Your task to perform on an android device: toggle show notifications on the lock screen Image 0: 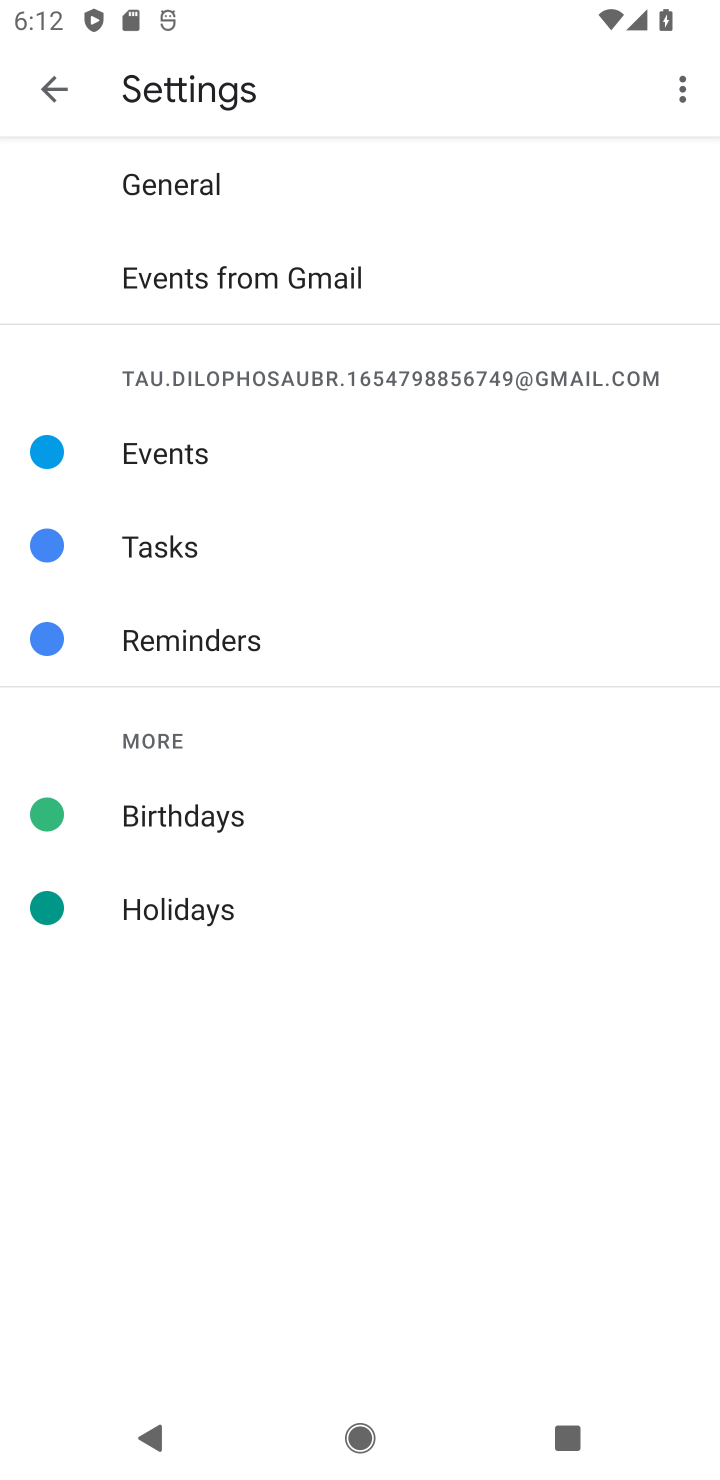
Step 0: press home button
Your task to perform on an android device: toggle show notifications on the lock screen Image 1: 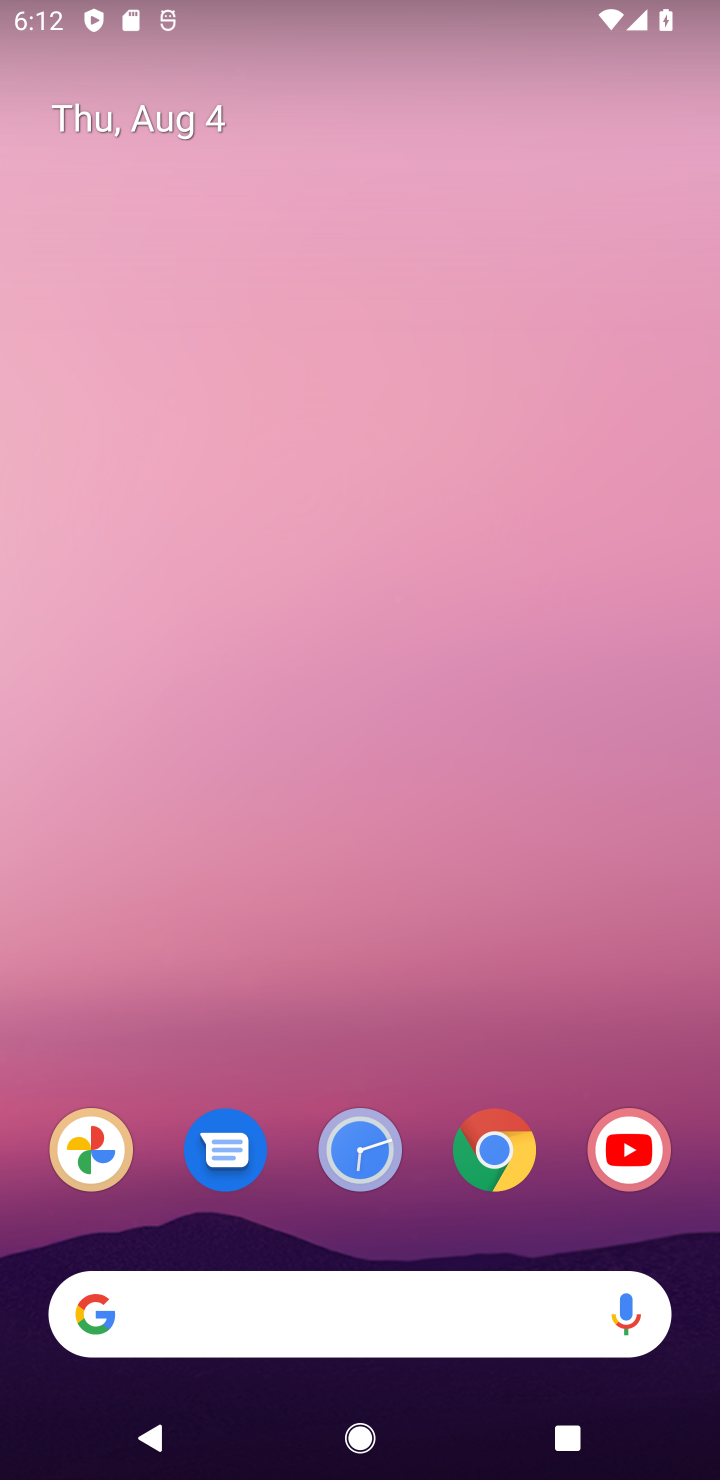
Step 1: drag from (529, 1166) to (369, 3)
Your task to perform on an android device: toggle show notifications on the lock screen Image 2: 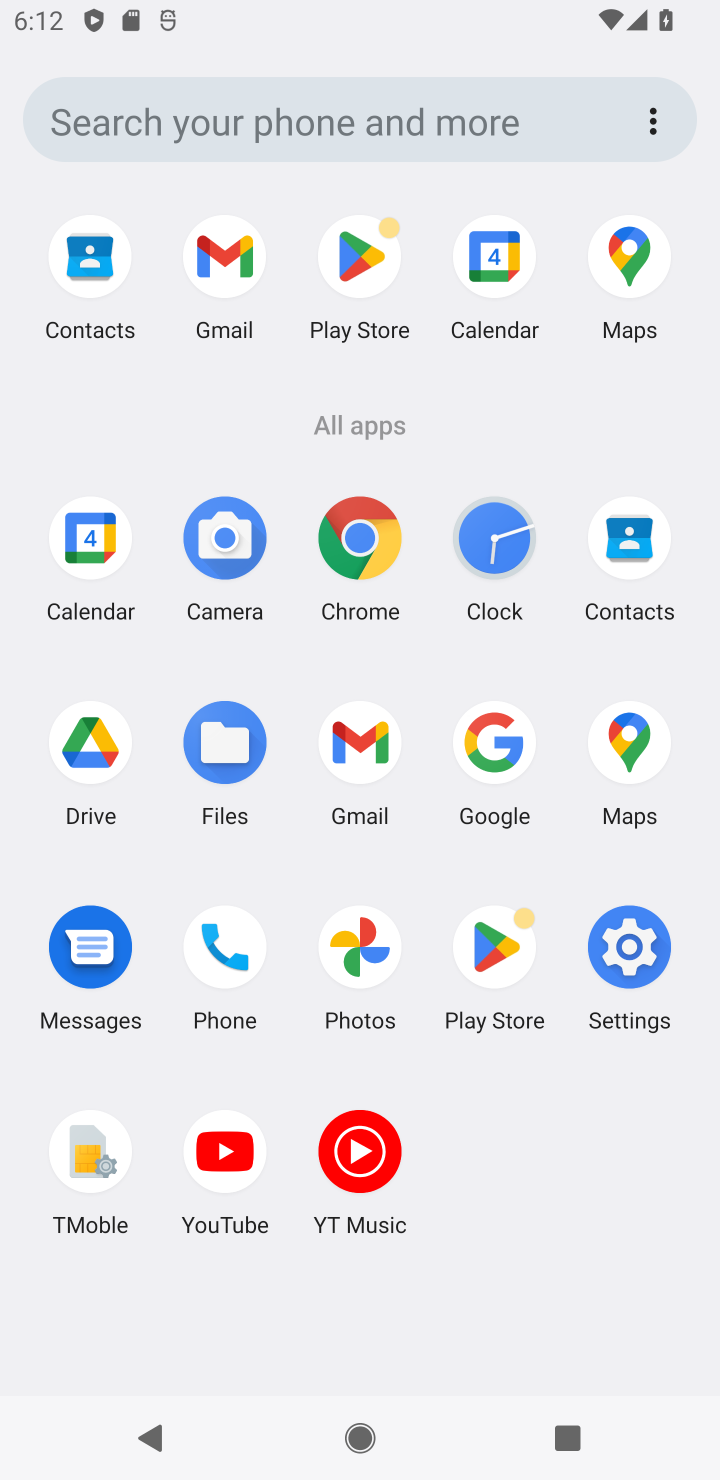
Step 2: click (630, 950)
Your task to perform on an android device: toggle show notifications on the lock screen Image 3: 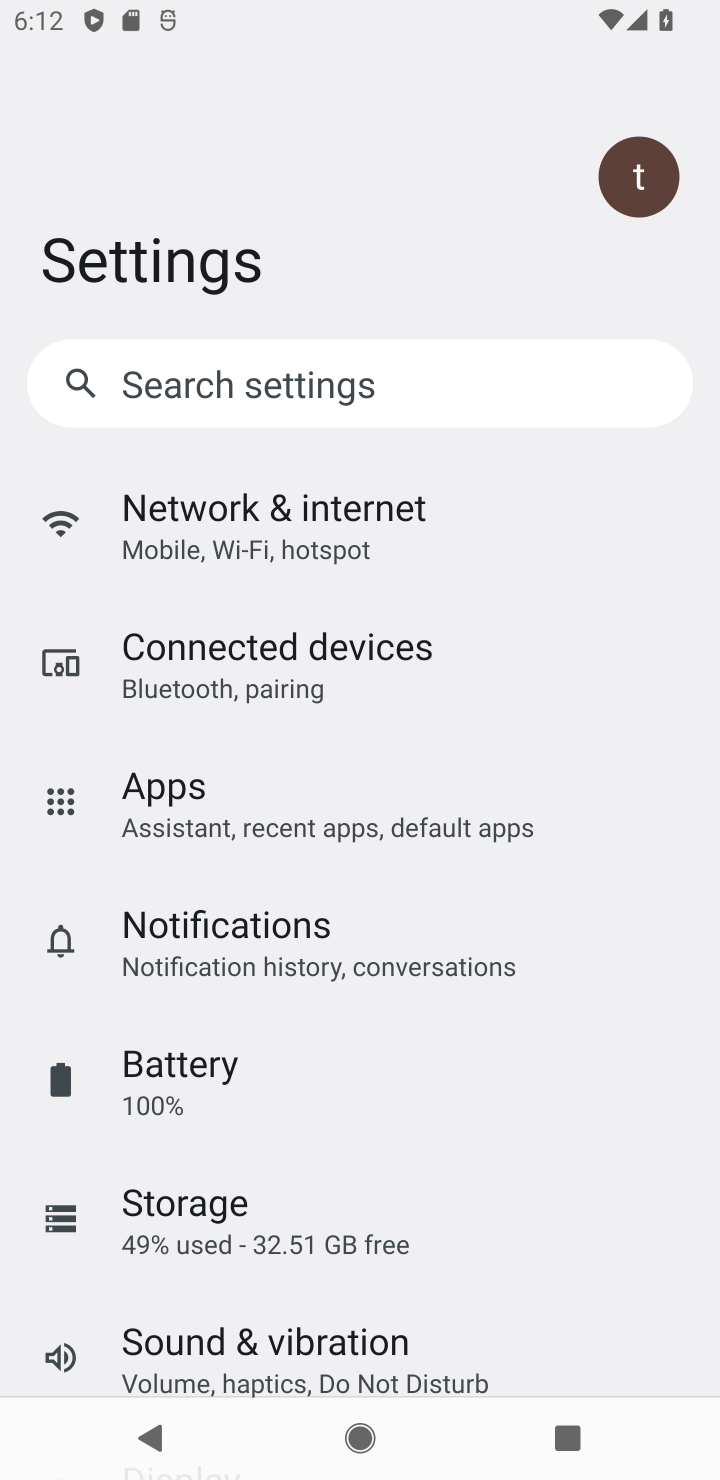
Step 3: click (159, 955)
Your task to perform on an android device: toggle show notifications on the lock screen Image 4: 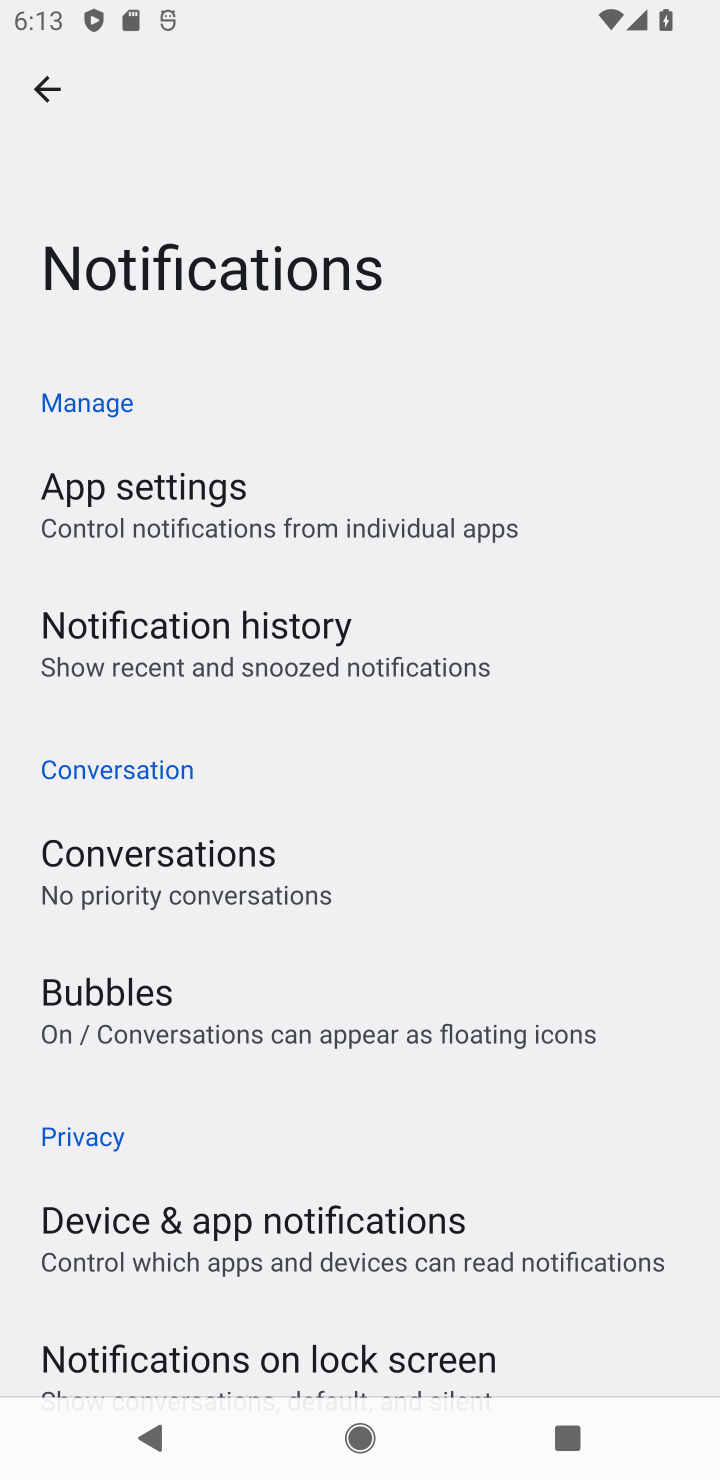
Step 4: drag from (320, 1251) to (271, 649)
Your task to perform on an android device: toggle show notifications on the lock screen Image 5: 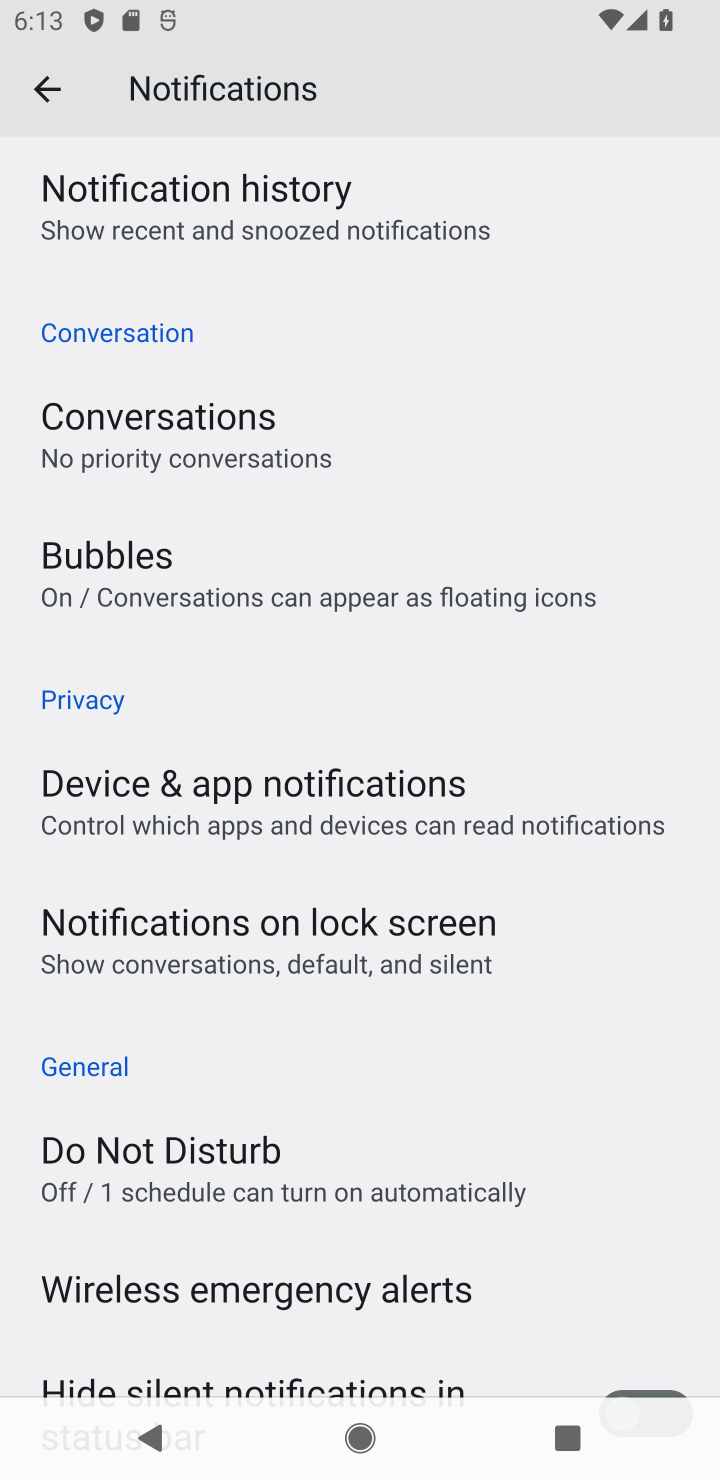
Step 5: click (343, 927)
Your task to perform on an android device: toggle show notifications on the lock screen Image 6: 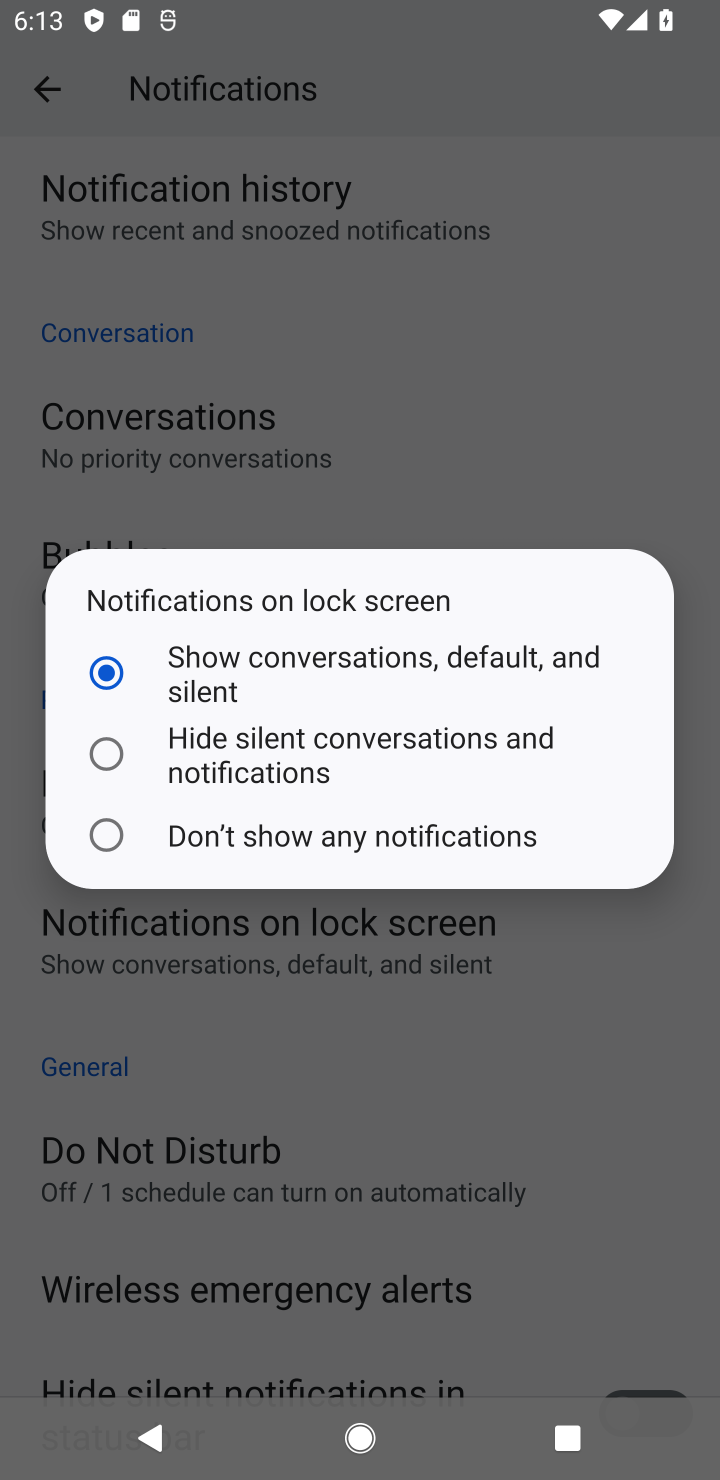
Step 6: click (112, 834)
Your task to perform on an android device: toggle show notifications on the lock screen Image 7: 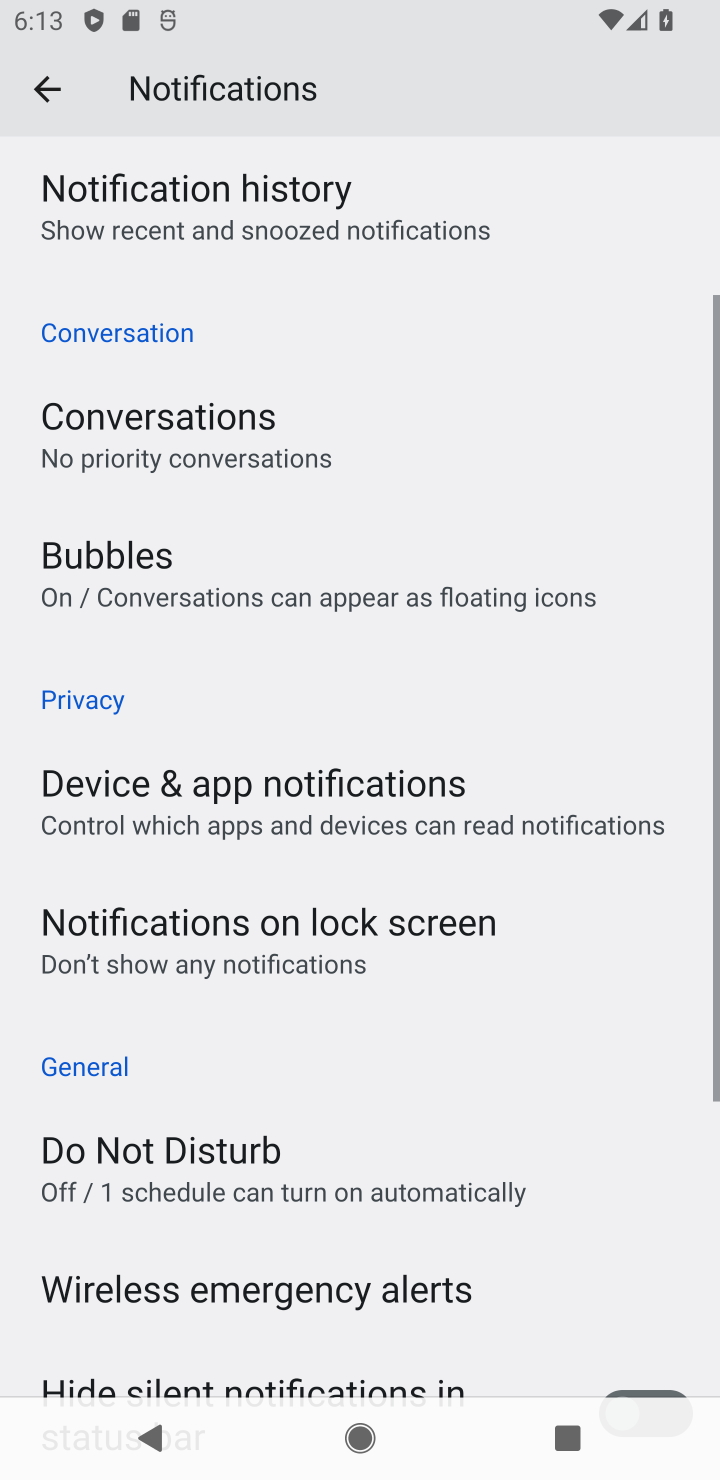
Step 7: task complete